Your task to perform on an android device: Open notification settings Image 0: 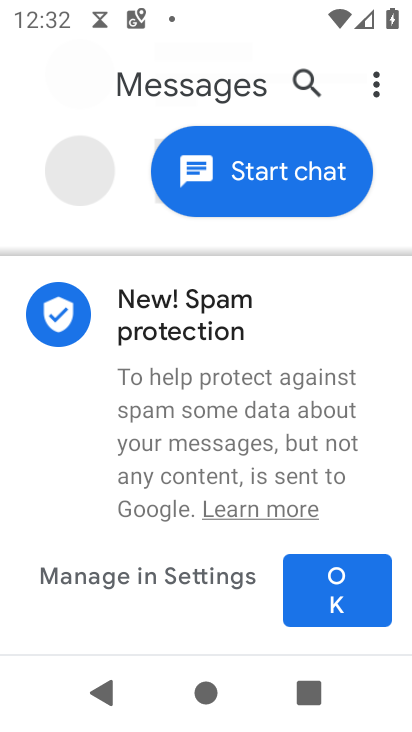
Step 0: press home button
Your task to perform on an android device: Open notification settings Image 1: 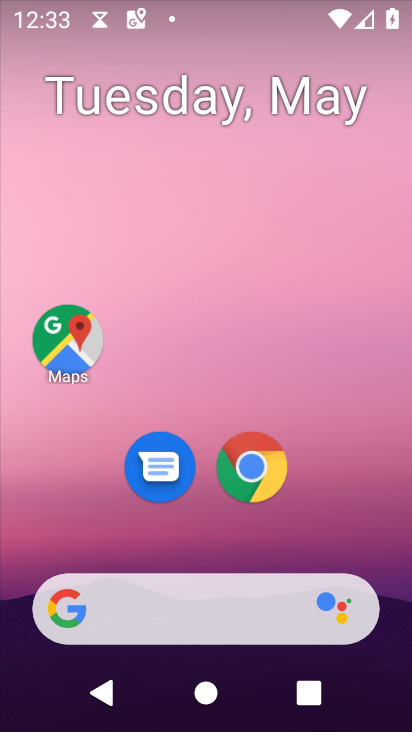
Step 1: drag from (324, 521) to (280, 30)
Your task to perform on an android device: Open notification settings Image 2: 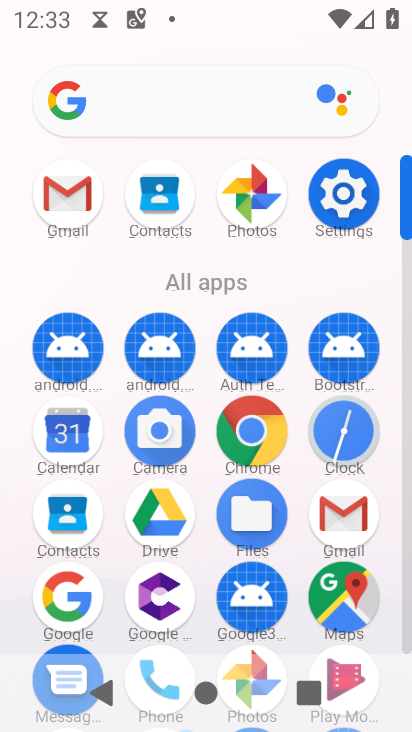
Step 2: click (337, 203)
Your task to perform on an android device: Open notification settings Image 3: 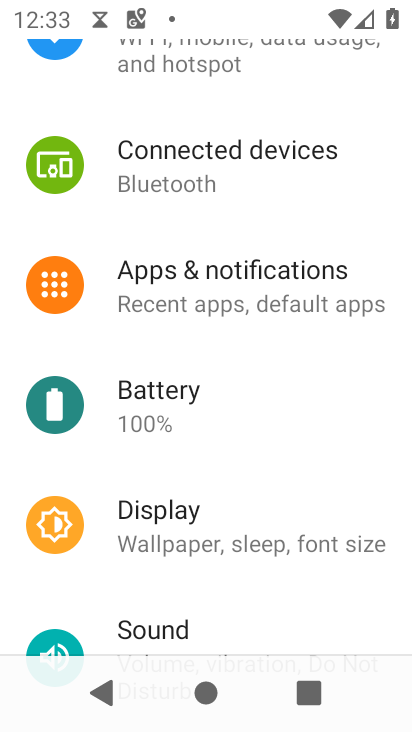
Step 3: click (251, 280)
Your task to perform on an android device: Open notification settings Image 4: 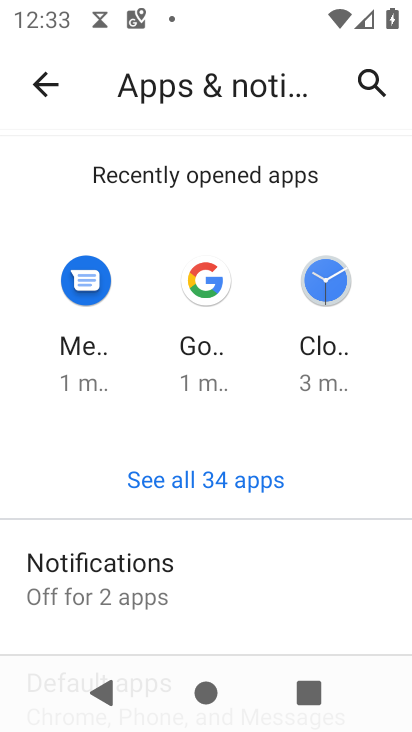
Step 4: task complete